Your task to perform on an android device: turn on javascript in the chrome app Image 0: 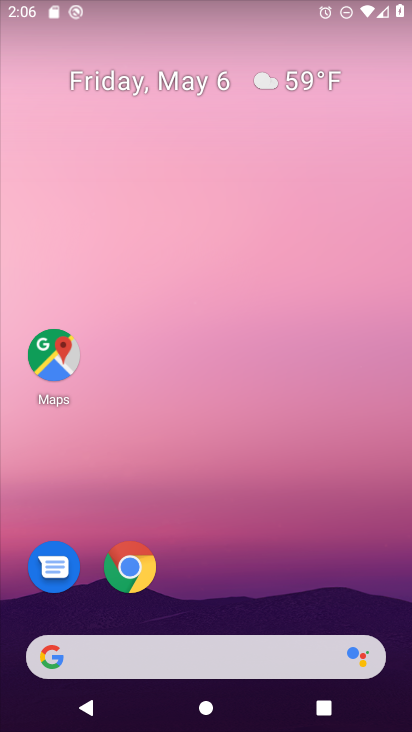
Step 0: drag from (294, 567) to (337, 59)
Your task to perform on an android device: turn on javascript in the chrome app Image 1: 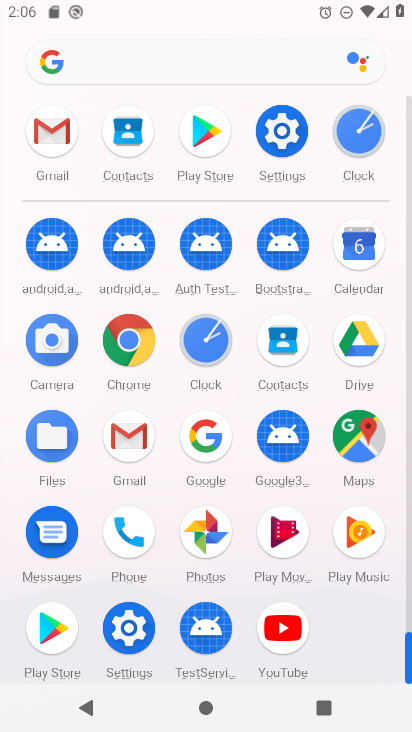
Step 1: click (143, 359)
Your task to perform on an android device: turn on javascript in the chrome app Image 2: 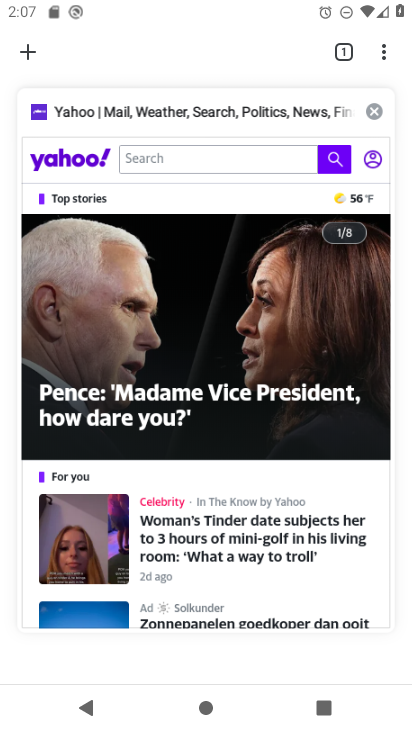
Step 2: click (385, 62)
Your task to perform on an android device: turn on javascript in the chrome app Image 3: 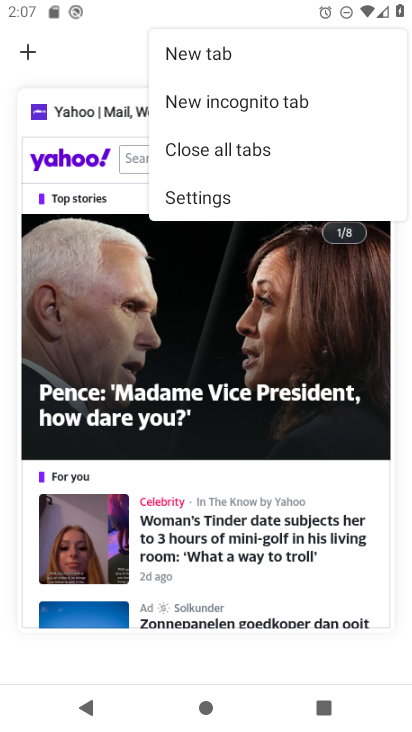
Step 3: click (202, 188)
Your task to perform on an android device: turn on javascript in the chrome app Image 4: 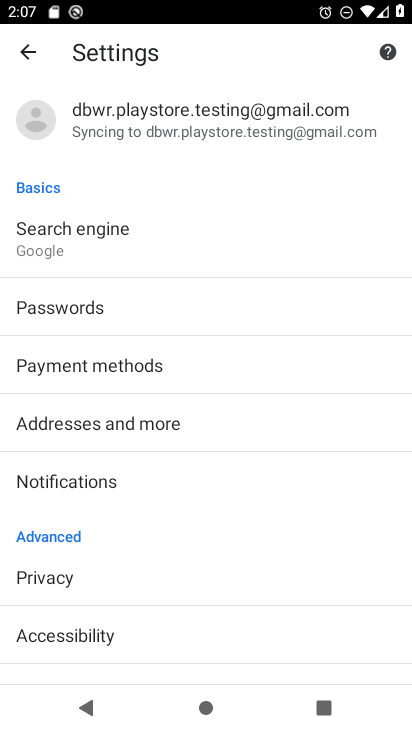
Step 4: drag from (225, 604) to (170, 228)
Your task to perform on an android device: turn on javascript in the chrome app Image 5: 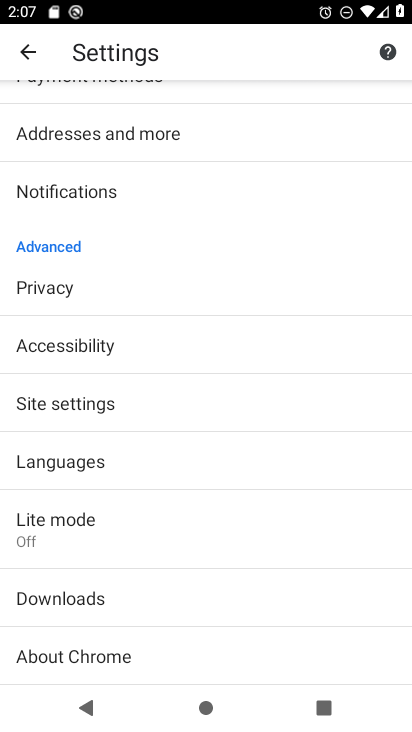
Step 5: drag from (150, 611) to (133, 360)
Your task to perform on an android device: turn on javascript in the chrome app Image 6: 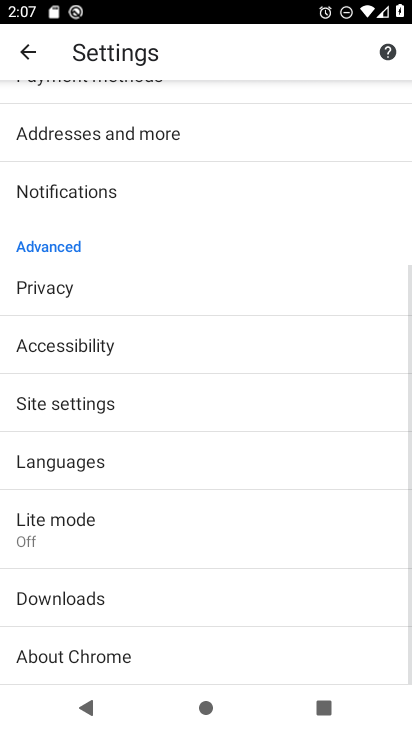
Step 6: click (124, 392)
Your task to perform on an android device: turn on javascript in the chrome app Image 7: 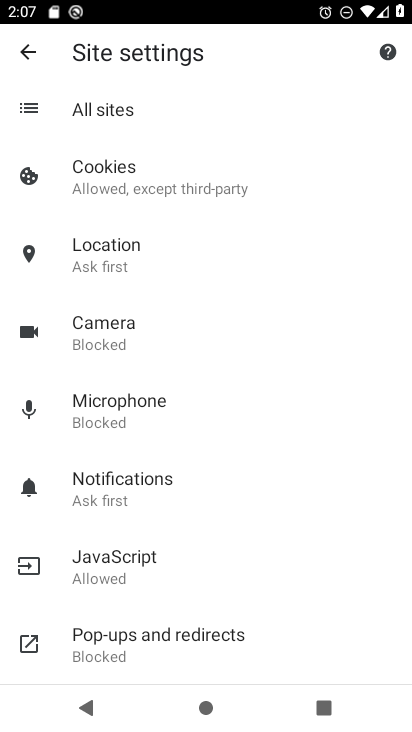
Step 7: click (166, 571)
Your task to perform on an android device: turn on javascript in the chrome app Image 8: 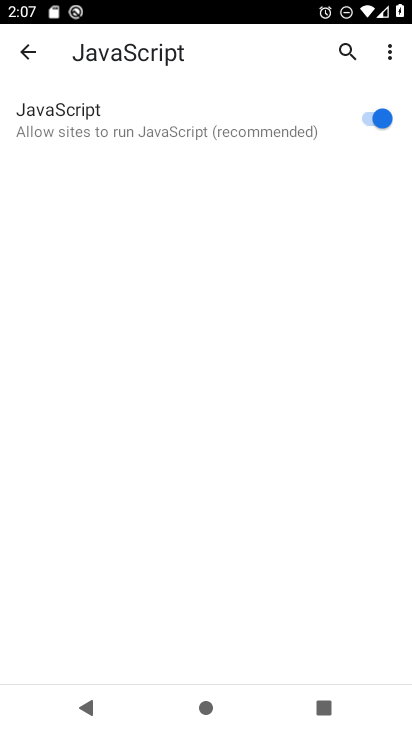
Step 8: task complete